Your task to perform on an android device: install app "Facebook" Image 0: 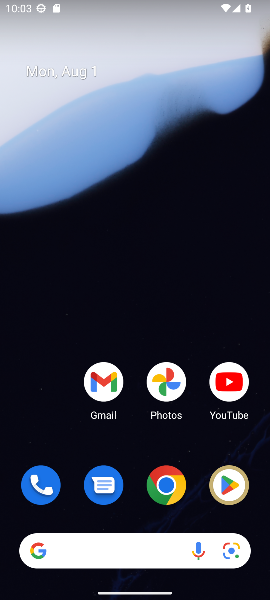
Step 0: drag from (141, 556) to (122, 99)
Your task to perform on an android device: install app "Facebook" Image 1: 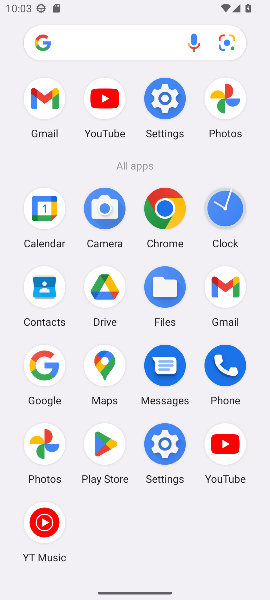
Step 1: click (105, 439)
Your task to perform on an android device: install app "Facebook" Image 2: 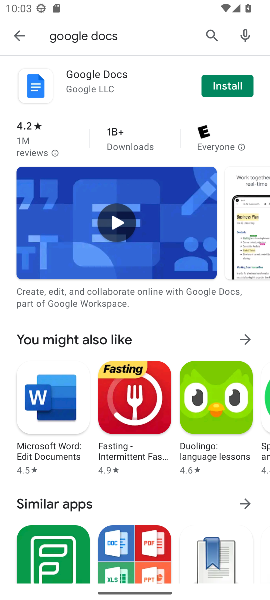
Step 2: click (216, 36)
Your task to perform on an android device: install app "Facebook" Image 3: 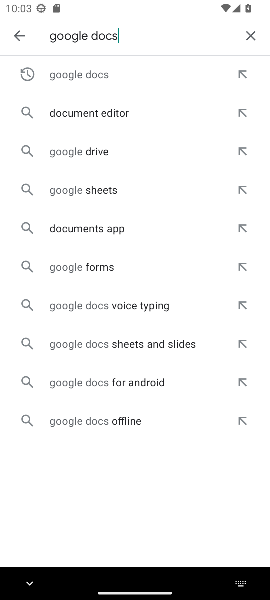
Step 3: click (249, 33)
Your task to perform on an android device: install app "Facebook" Image 4: 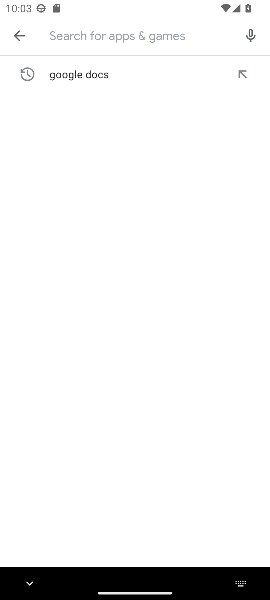
Step 4: type "facebook"
Your task to perform on an android device: install app "Facebook" Image 5: 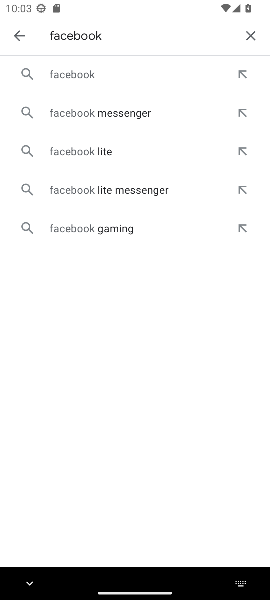
Step 5: click (96, 71)
Your task to perform on an android device: install app "Facebook" Image 6: 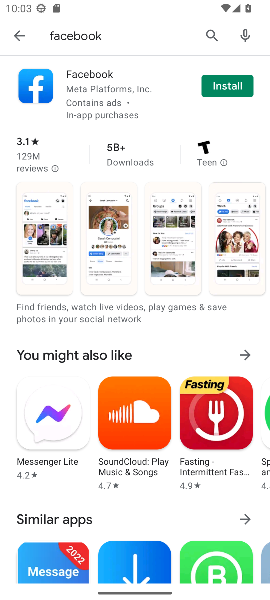
Step 6: click (240, 91)
Your task to perform on an android device: install app "Facebook" Image 7: 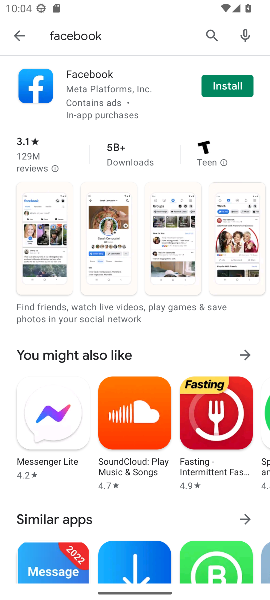
Step 7: click (240, 91)
Your task to perform on an android device: install app "Facebook" Image 8: 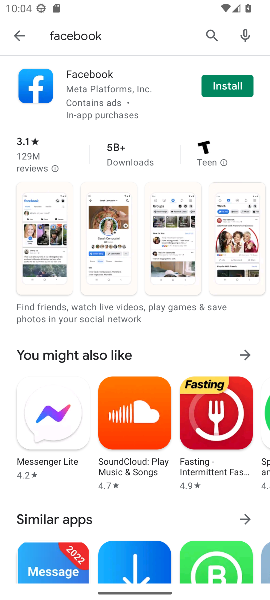
Step 8: click (218, 82)
Your task to perform on an android device: install app "Facebook" Image 9: 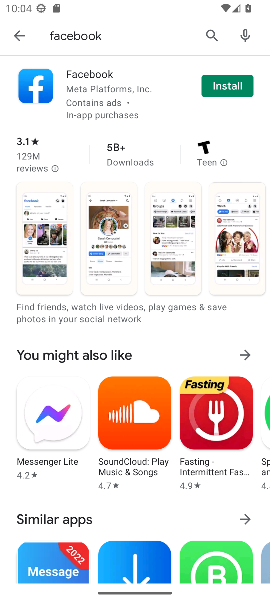
Step 9: task complete